Your task to perform on an android device: empty trash in the gmail app Image 0: 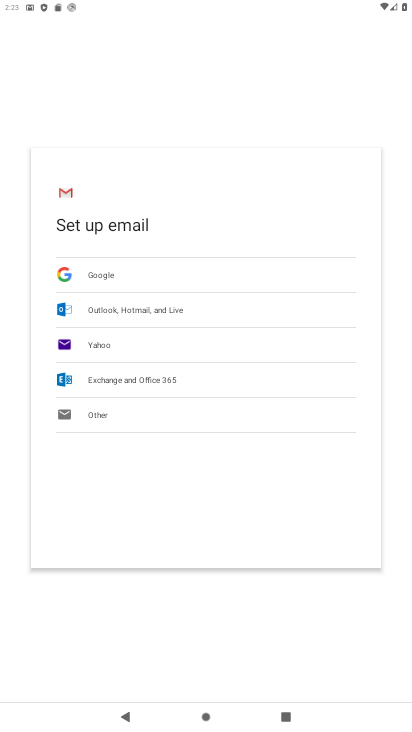
Step 0: press home button
Your task to perform on an android device: empty trash in the gmail app Image 1: 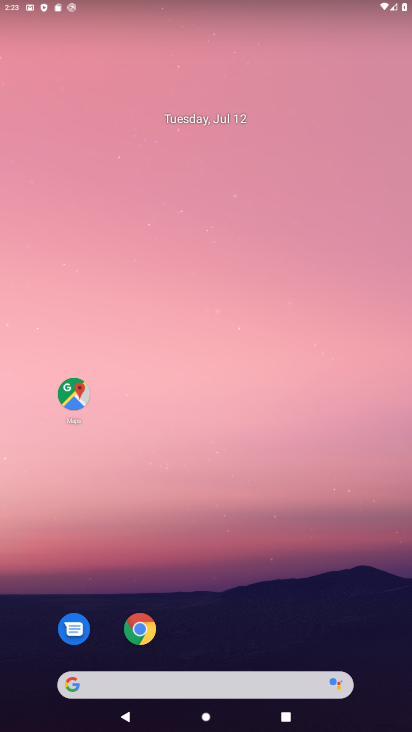
Step 1: drag from (199, 684) to (226, 173)
Your task to perform on an android device: empty trash in the gmail app Image 2: 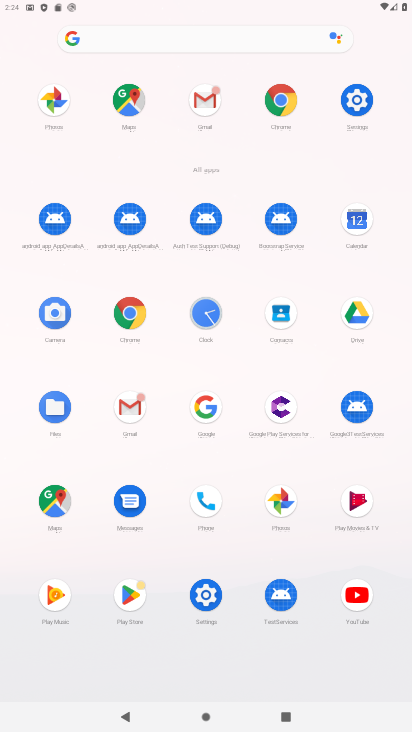
Step 2: click (204, 101)
Your task to perform on an android device: empty trash in the gmail app Image 3: 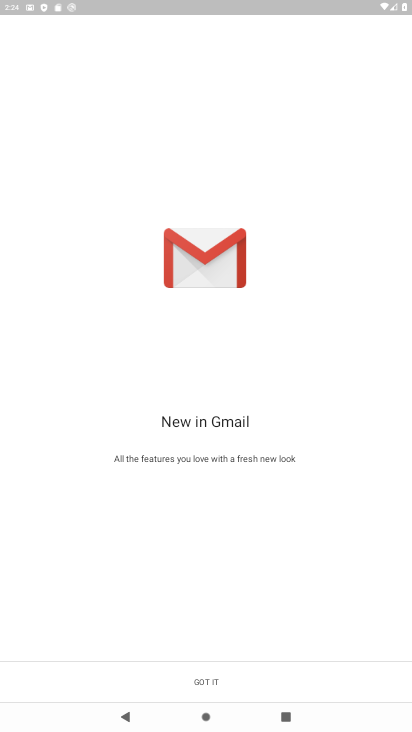
Step 3: click (210, 681)
Your task to perform on an android device: empty trash in the gmail app Image 4: 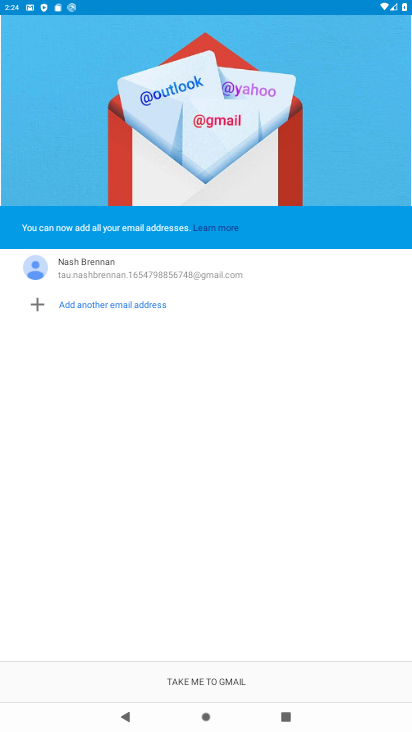
Step 4: click (211, 678)
Your task to perform on an android device: empty trash in the gmail app Image 5: 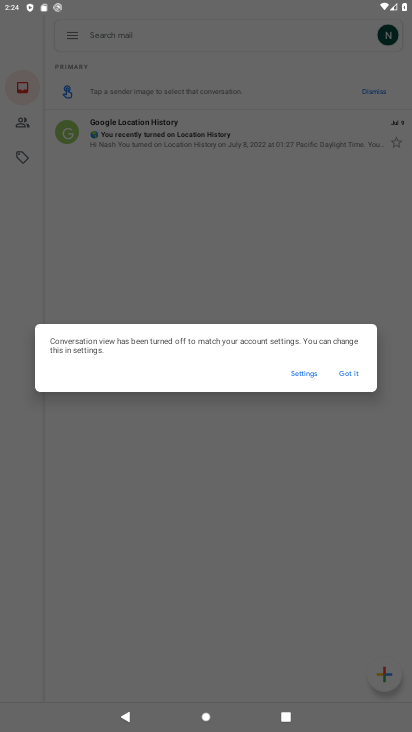
Step 5: click (345, 378)
Your task to perform on an android device: empty trash in the gmail app Image 6: 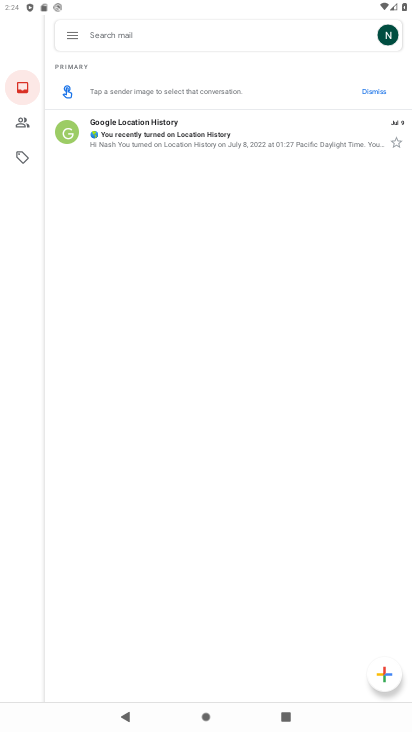
Step 6: click (72, 37)
Your task to perform on an android device: empty trash in the gmail app Image 7: 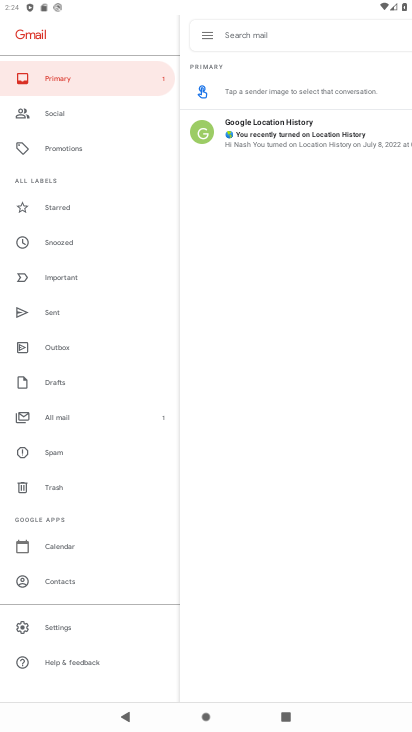
Step 7: click (57, 484)
Your task to perform on an android device: empty trash in the gmail app Image 8: 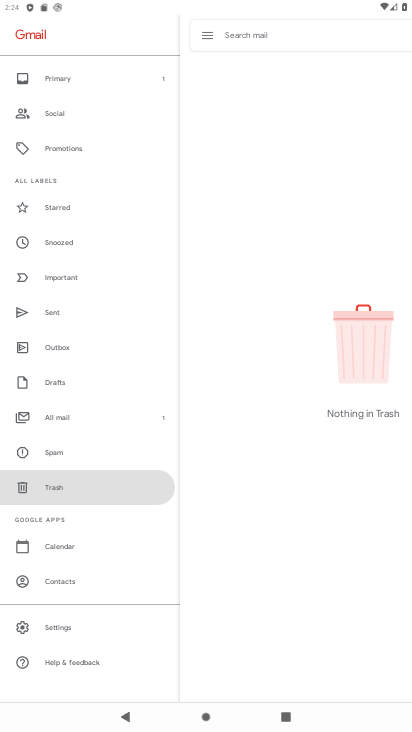
Step 8: task complete